Your task to perform on an android device: add a contact Image 0: 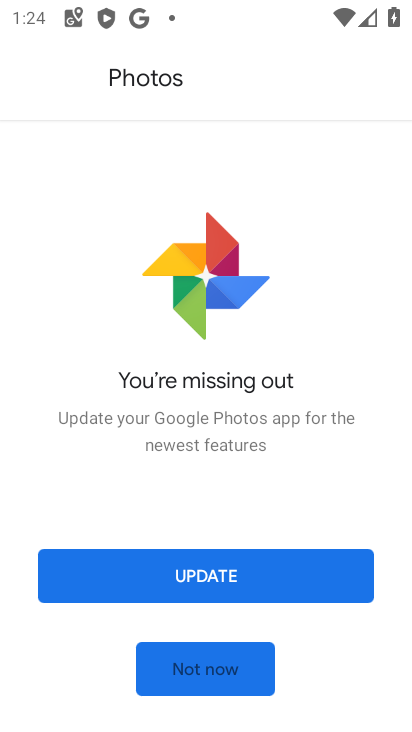
Step 0: press back button
Your task to perform on an android device: add a contact Image 1: 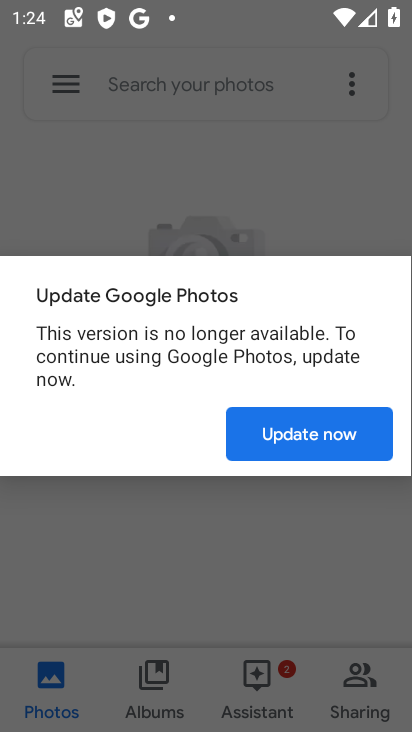
Step 1: press home button
Your task to perform on an android device: add a contact Image 2: 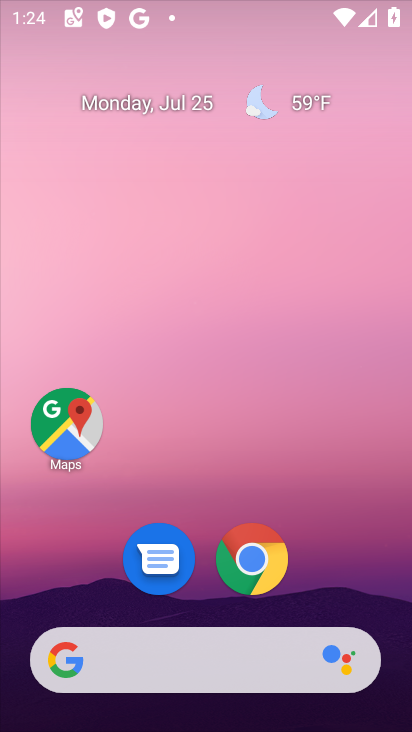
Step 2: drag from (65, 565) to (201, 35)
Your task to perform on an android device: add a contact Image 3: 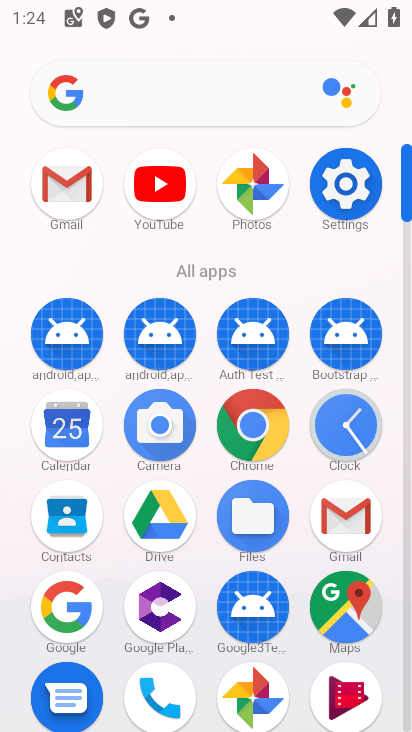
Step 3: click (67, 536)
Your task to perform on an android device: add a contact Image 4: 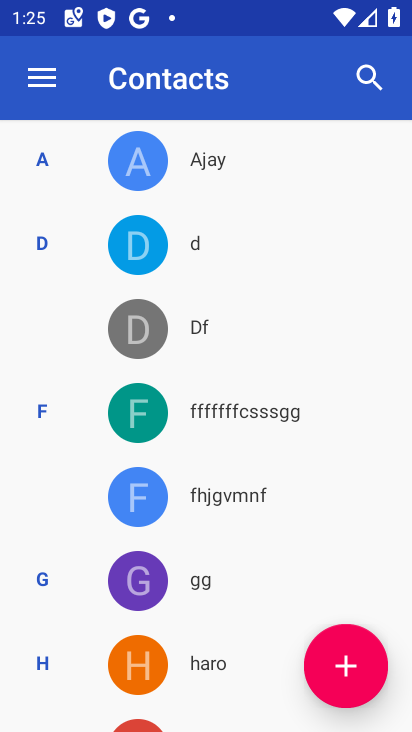
Step 4: click (367, 676)
Your task to perform on an android device: add a contact Image 5: 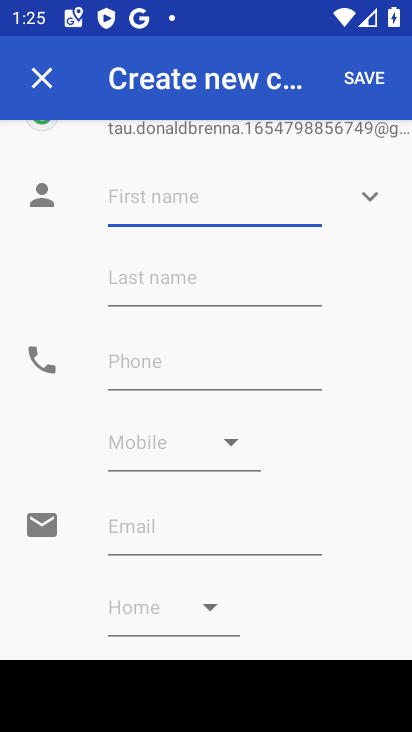
Step 5: click (160, 197)
Your task to perform on an android device: add a contact Image 6: 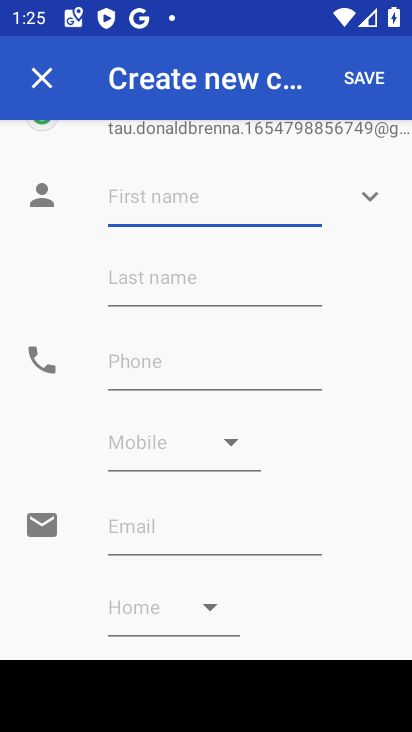
Step 6: type "yfy"
Your task to perform on an android device: add a contact Image 7: 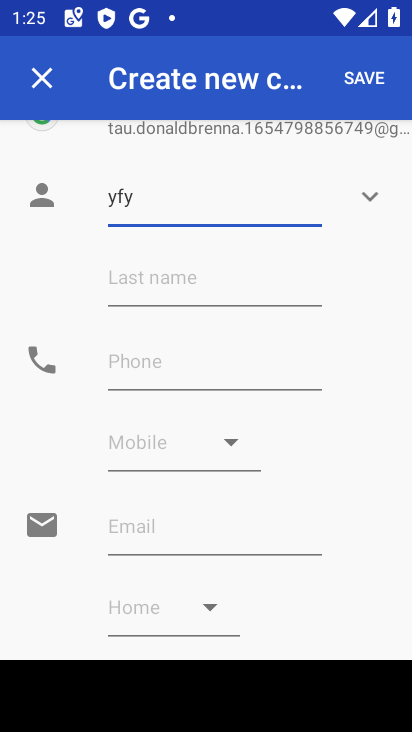
Step 7: click (136, 352)
Your task to perform on an android device: add a contact Image 8: 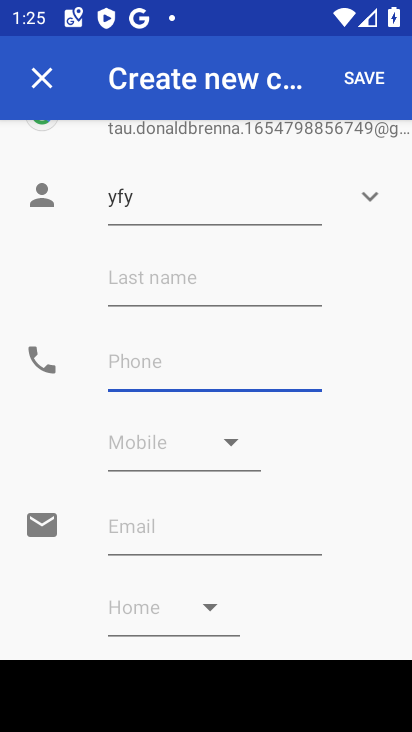
Step 8: type "8886"
Your task to perform on an android device: add a contact Image 9: 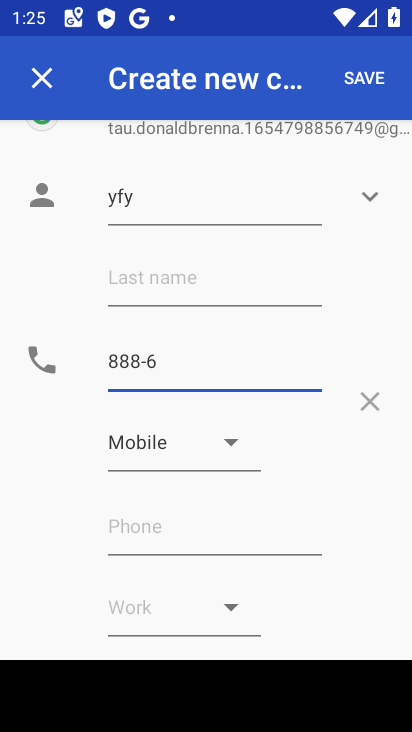
Step 9: click (362, 73)
Your task to perform on an android device: add a contact Image 10: 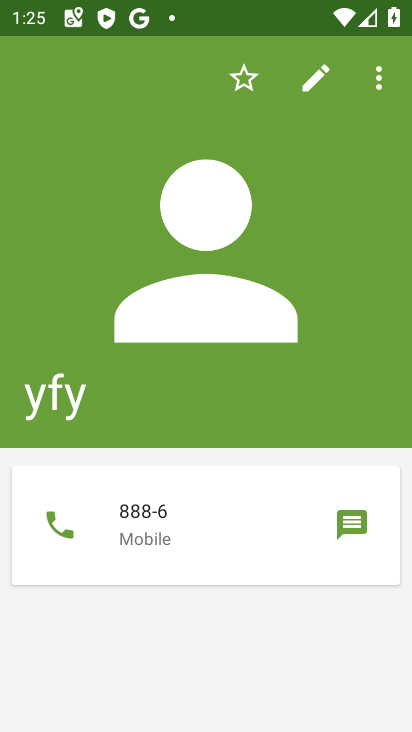
Step 10: task complete